Your task to perform on an android device: Open maps Image 0: 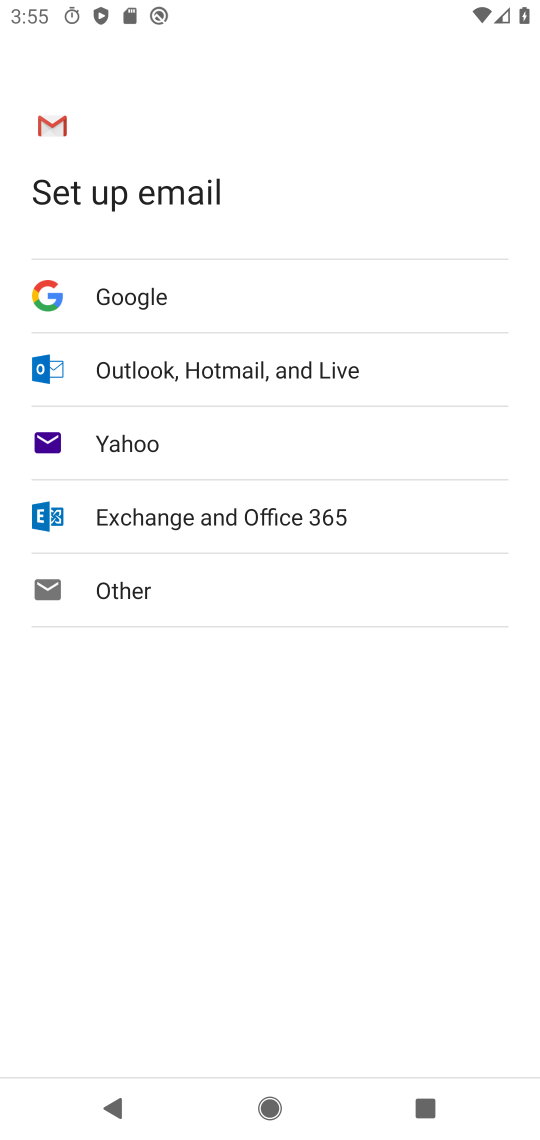
Step 0: press home button
Your task to perform on an android device: Open maps Image 1: 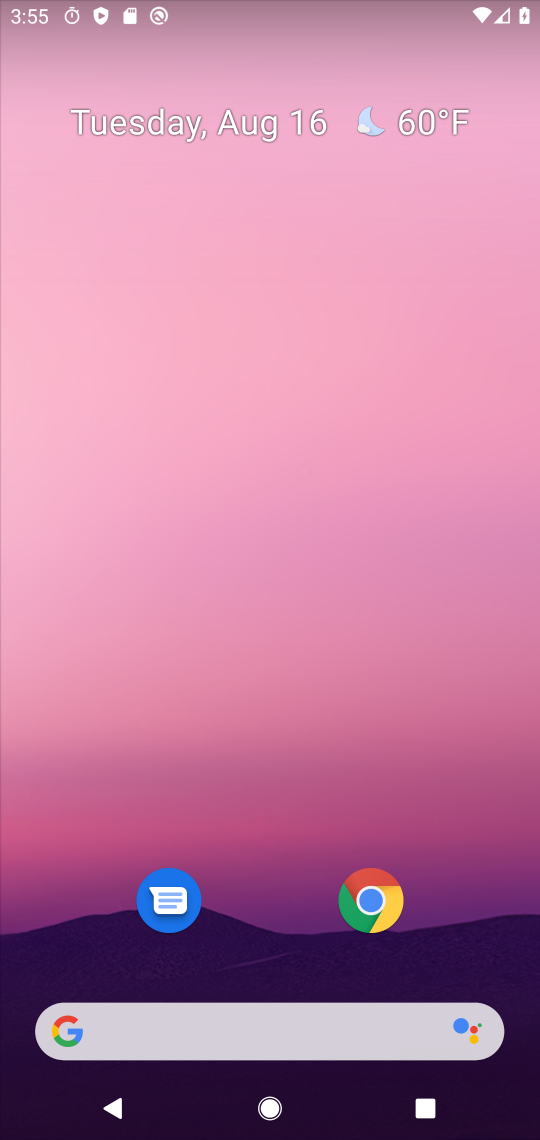
Step 1: drag from (293, 999) to (268, 187)
Your task to perform on an android device: Open maps Image 2: 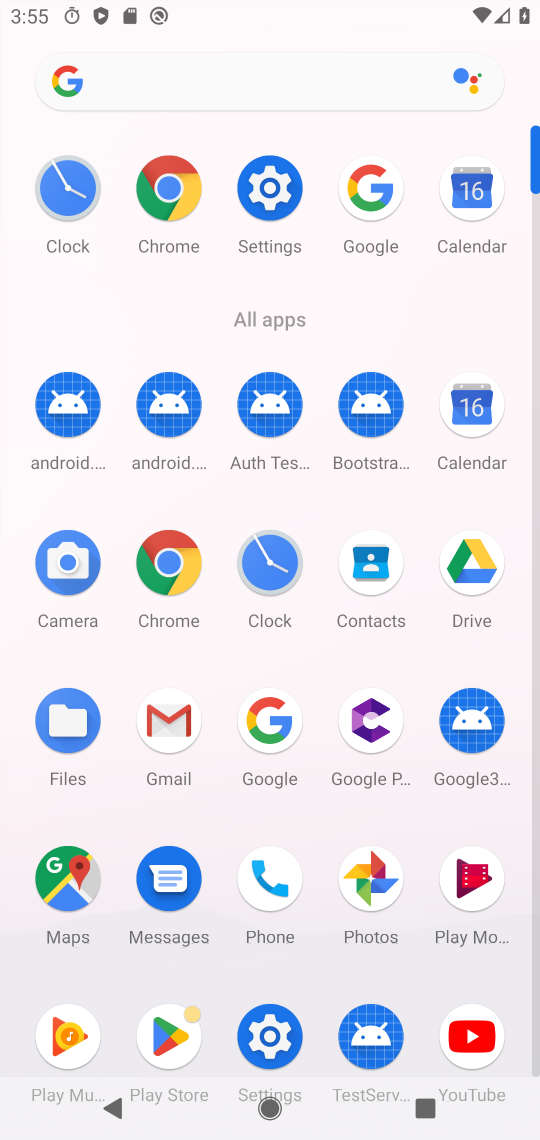
Step 2: click (54, 890)
Your task to perform on an android device: Open maps Image 3: 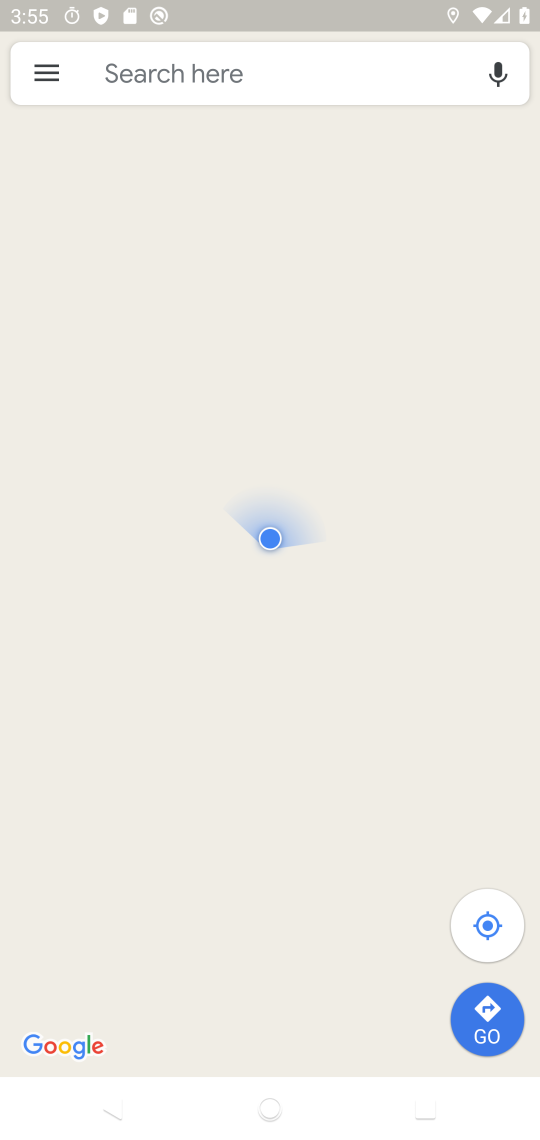
Step 3: task complete